Your task to perform on an android device: toggle data saver in the chrome app Image 0: 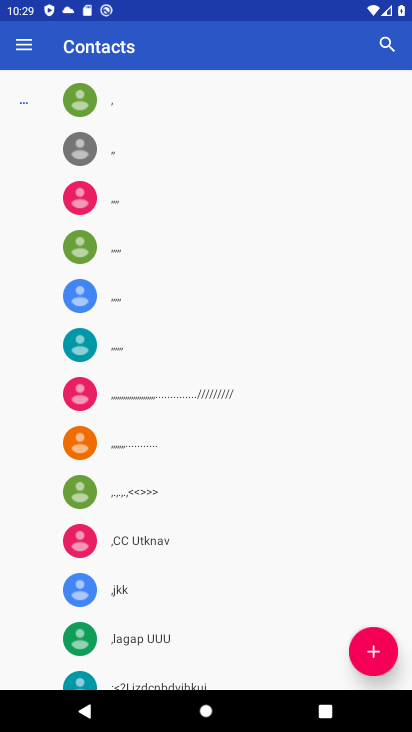
Step 0: press home button
Your task to perform on an android device: toggle data saver in the chrome app Image 1: 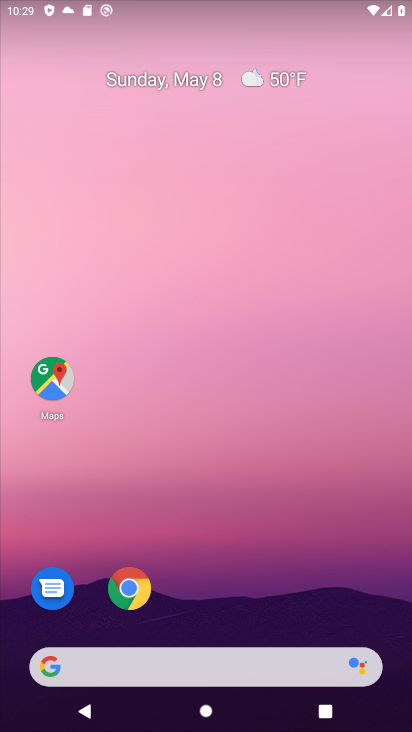
Step 1: click (146, 594)
Your task to perform on an android device: toggle data saver in the chrome app Image 2: 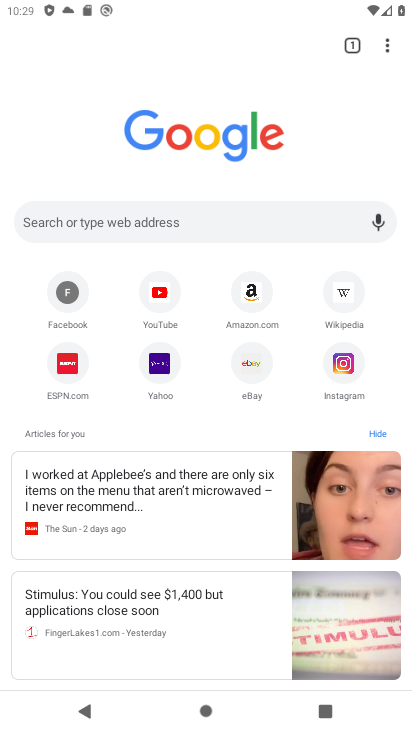
Step 2: click (387, 46)
Your task to perform on an android device: toggle data saver in the chrome app Image 3: 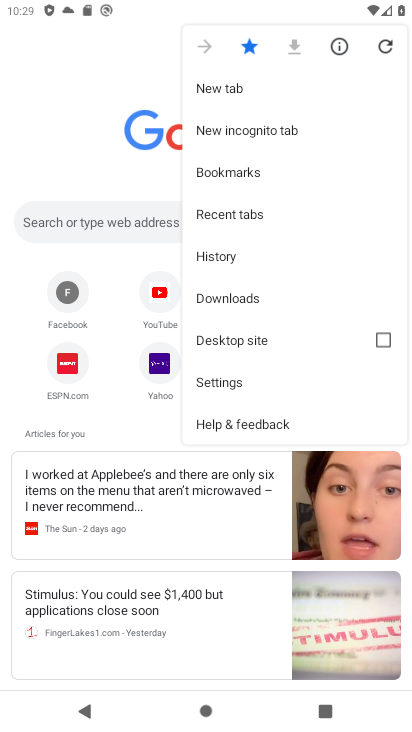
Step 3: click (235, 371)
Your task to perform on an android device: toggle data saver in the chrome app Image 4: 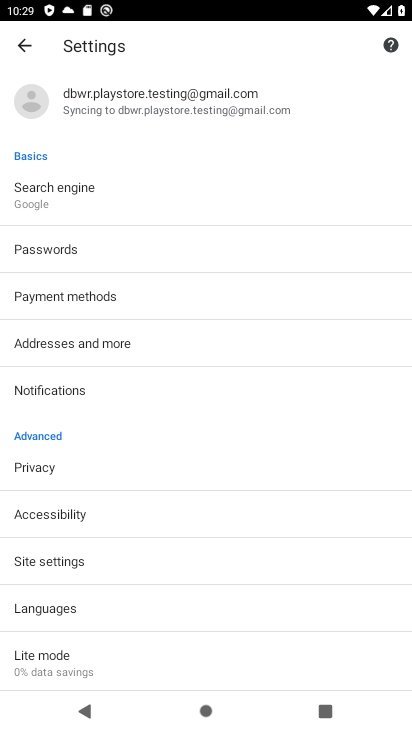
Step 4: click (95, 659)
Your task to perform on an android device: toggle data saver in the chrome app Image 5: 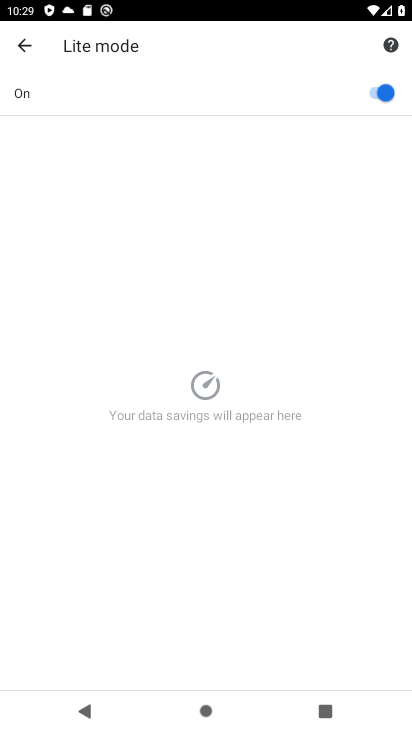
Step 5: click (371, 90)
Your task to perform on an android device: toggle data saver in the chrome app Image 6: 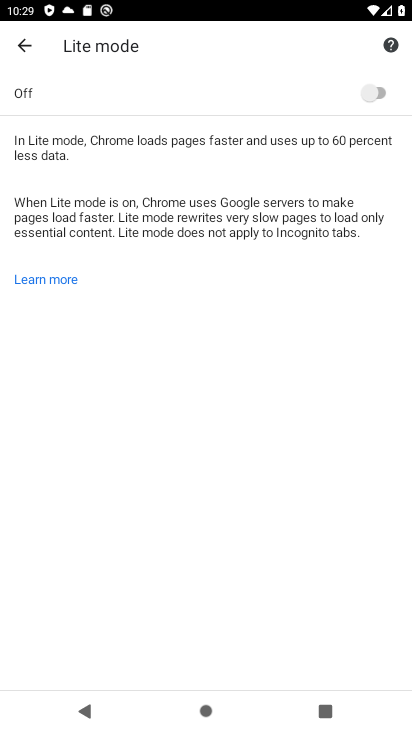
Step 6: task complete